Your task to perform on an android device: Open calendar and show me the second week of next month Image 0: 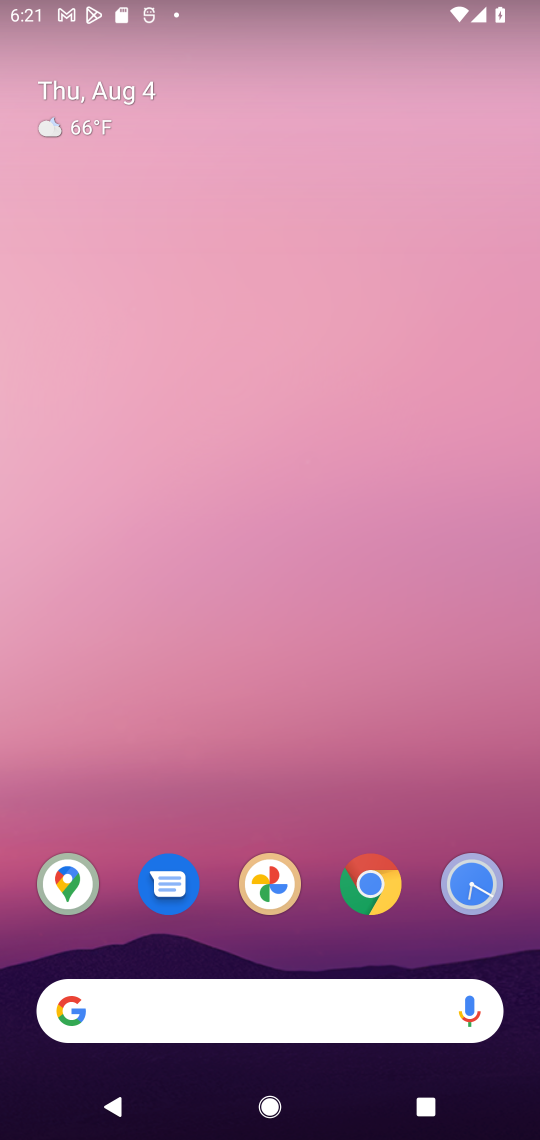
Step 0: drag from (296, 976) to (402, 123)
Your task to perform on an android device: Open calendar and show me the second week of next month Image 1: 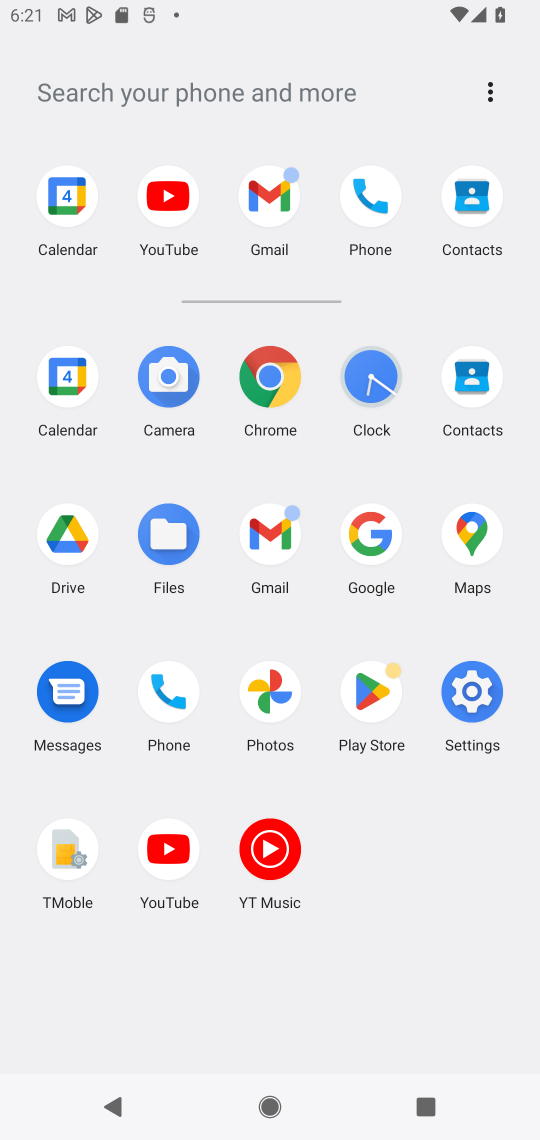
Step 1: click (55, 193)
Your task to perform on an android device: Open calendar and show me the second week of next month Image 2: 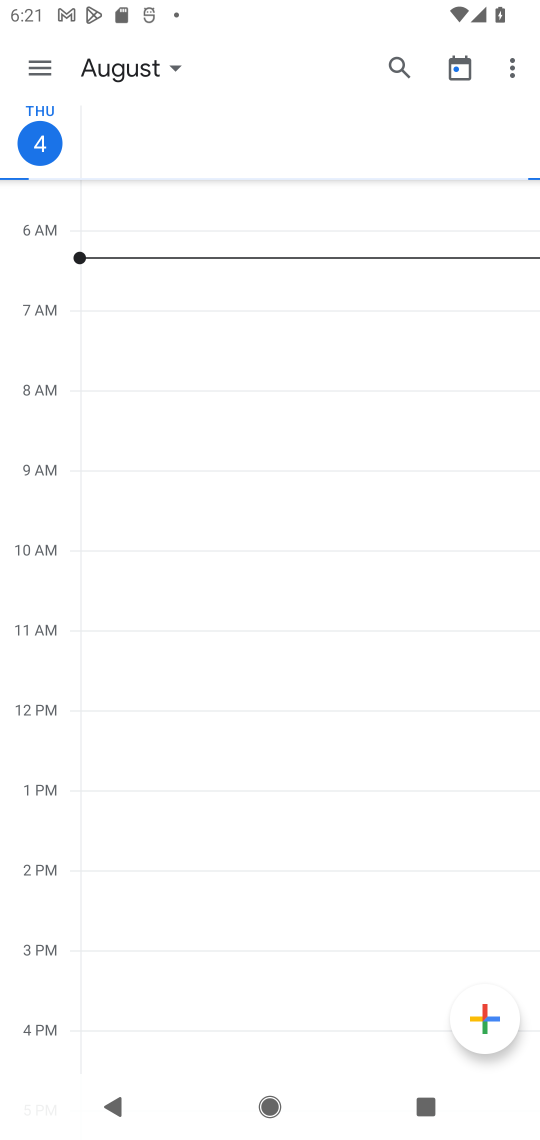
Step 2: task complete